Your task to perform on an android device: Show me recent news Image 0: 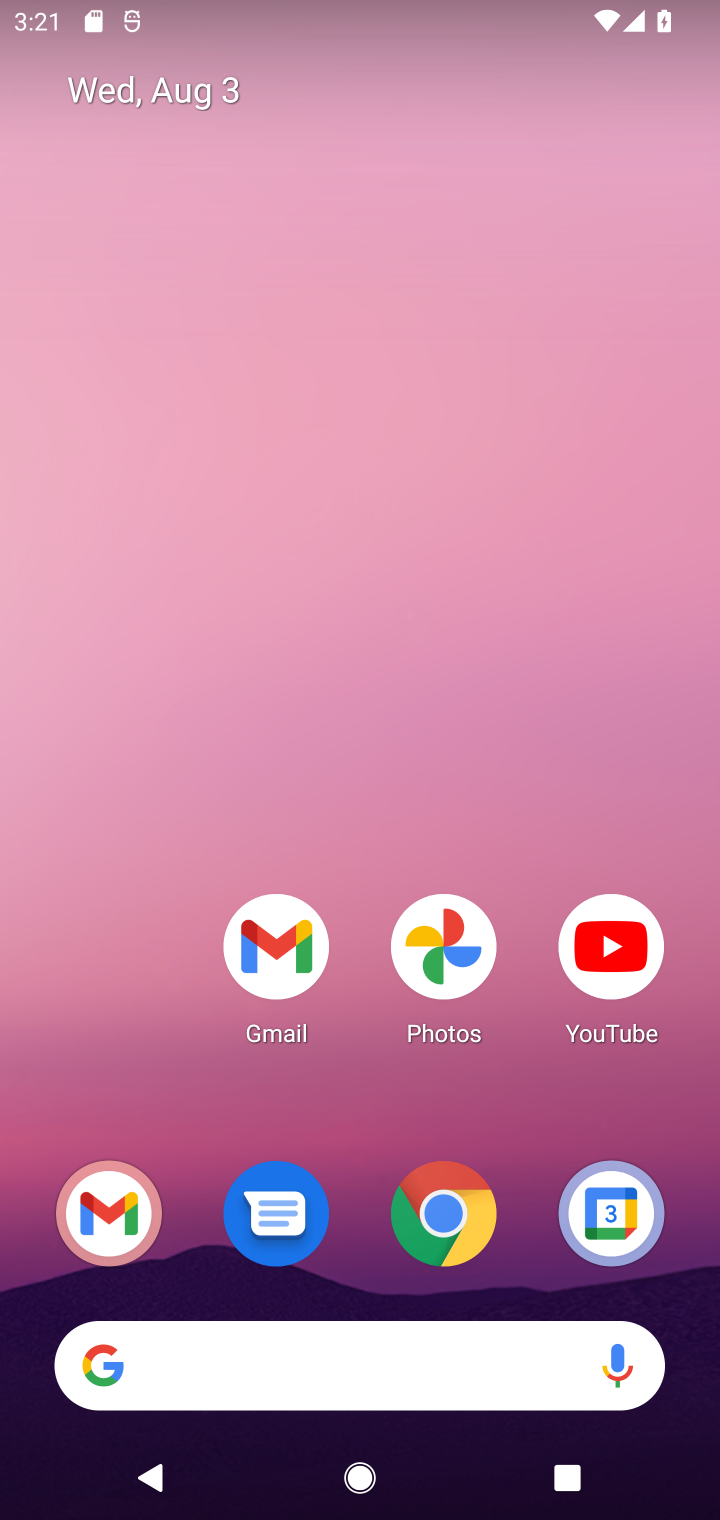
Step 0: drag from (335, 1232) to (340, 246)
Your task to perform on an android device: Show me recent news Image 1: 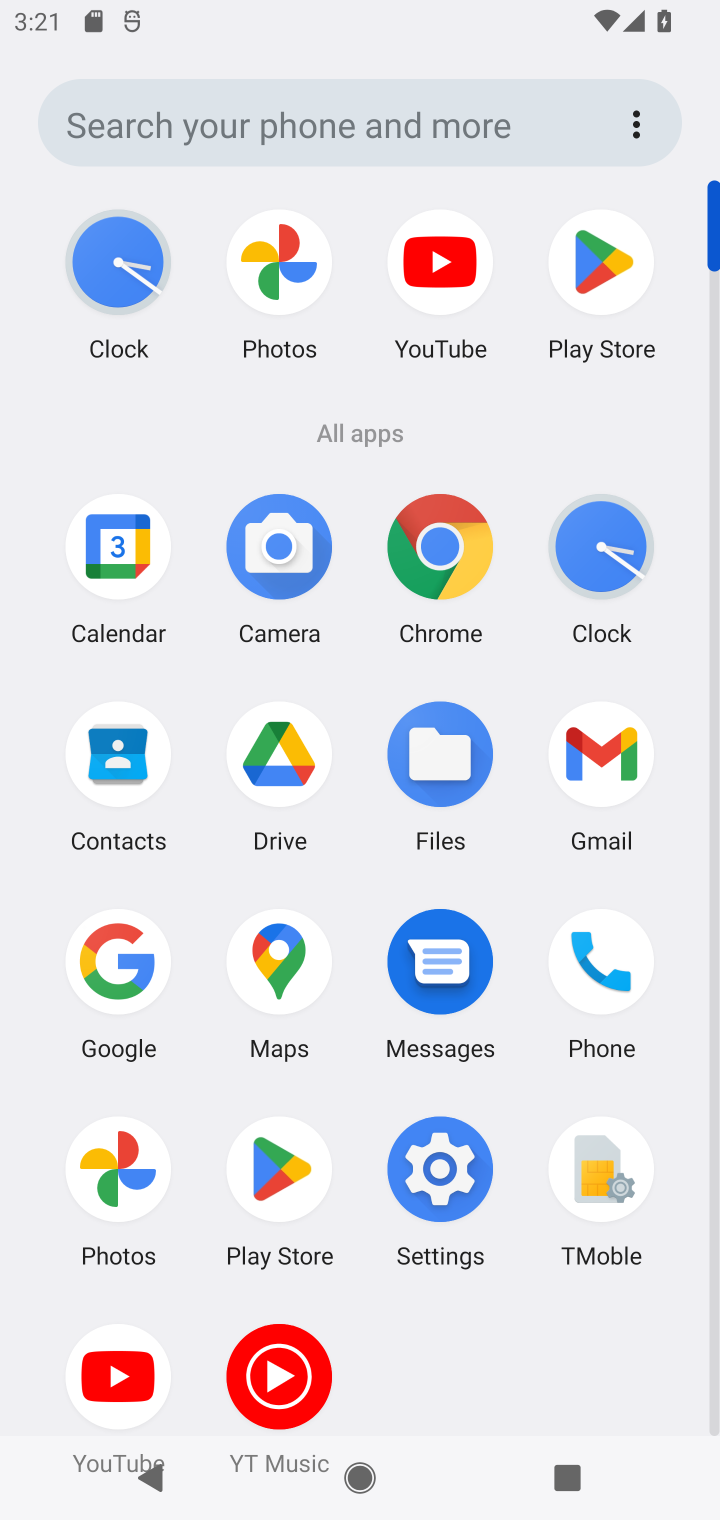
Step 1: click (457, 538)
Your task to perform on an android device: Show me recent news Image 2: 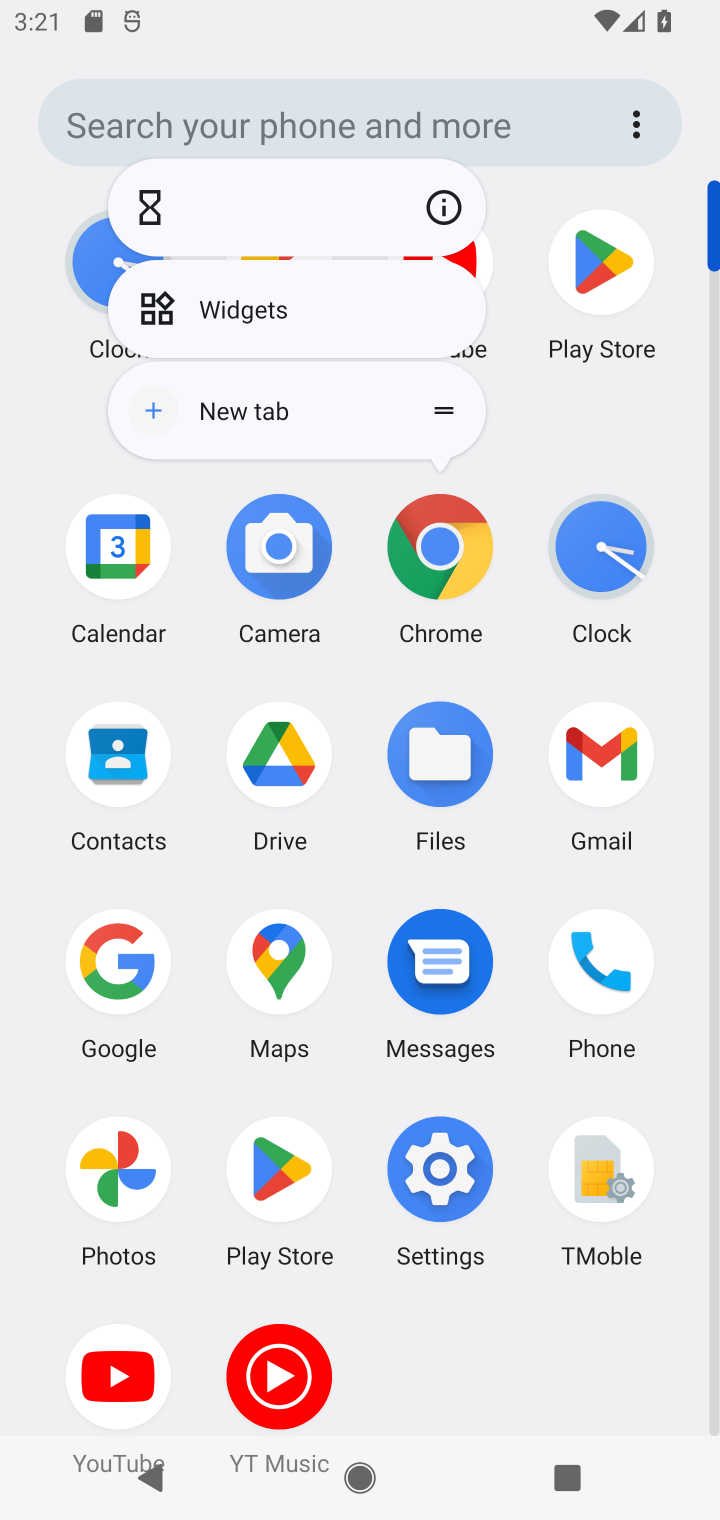
Step 2: click (431, 553)
Your task to perform on an android device: Show me recent news Image 3: 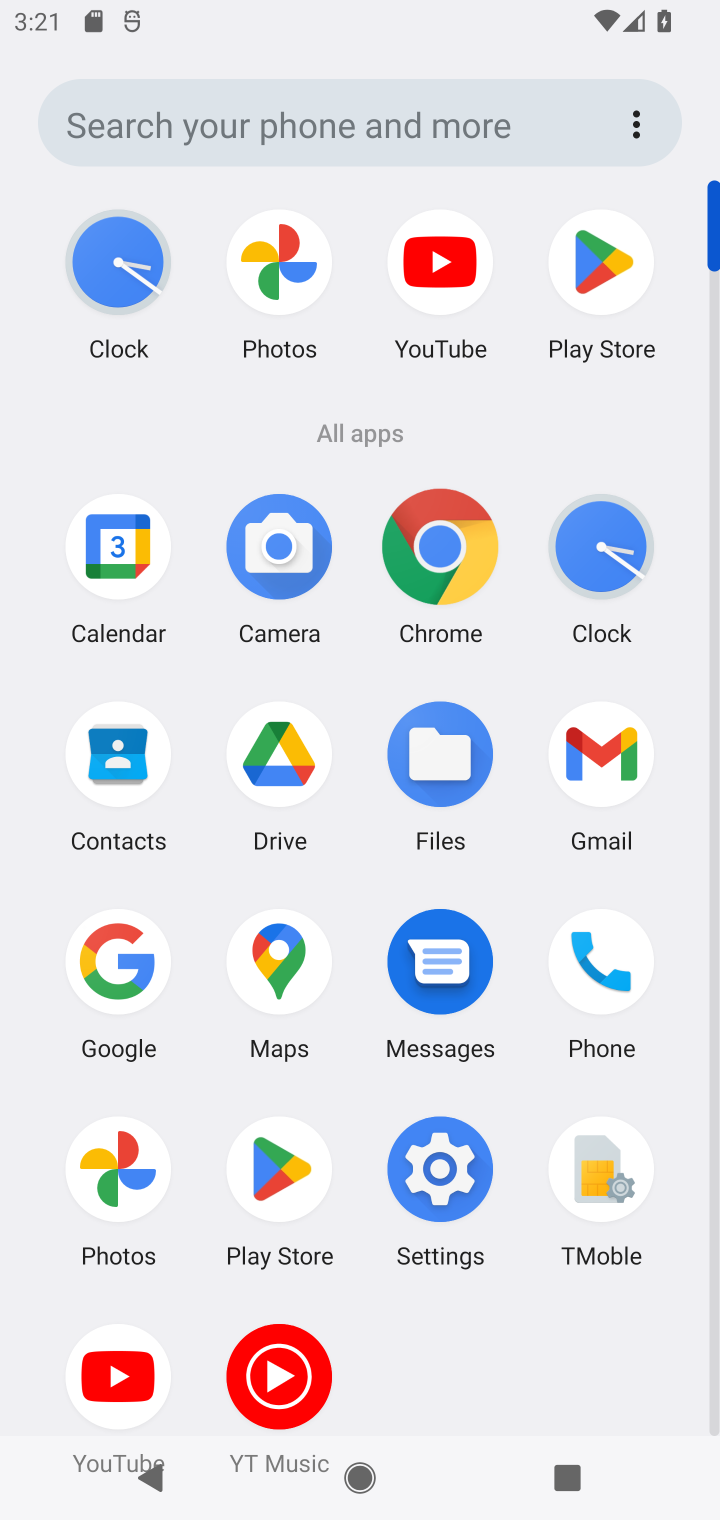
Step 3: click (428, 546)
Your task to perform on an android device: Show me recent news Image 4: 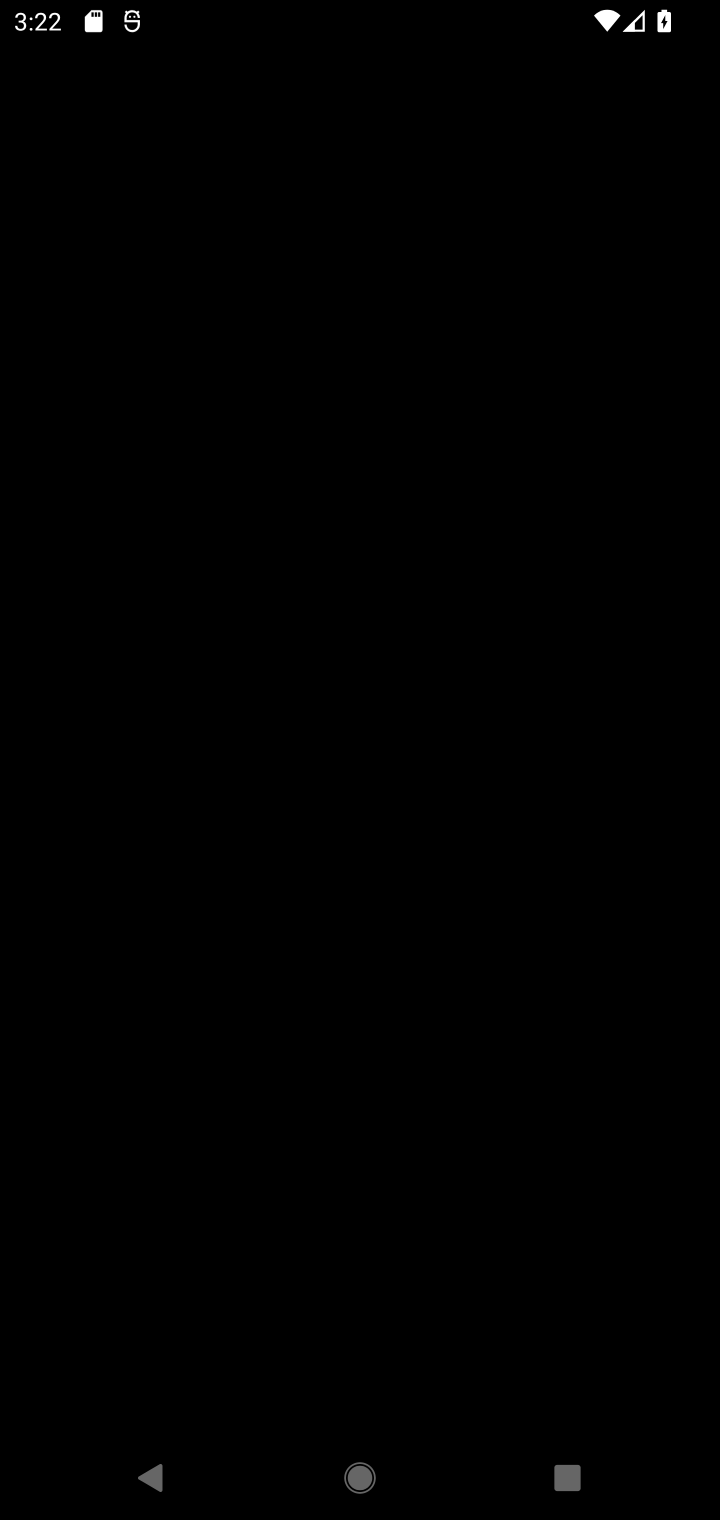
Step 4: task complete